Your task to perform on an android device: toggle priority inbox in the gmail app Image 0: 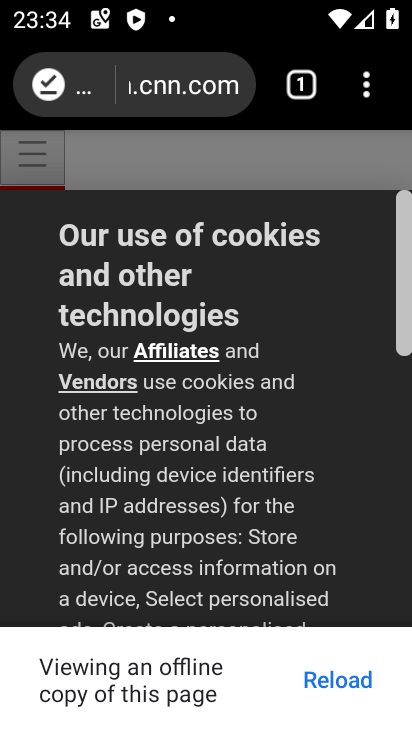
Step 0: press home button
Your task to perform on an android device: toggle priority inbox in the gmail app Image 1: 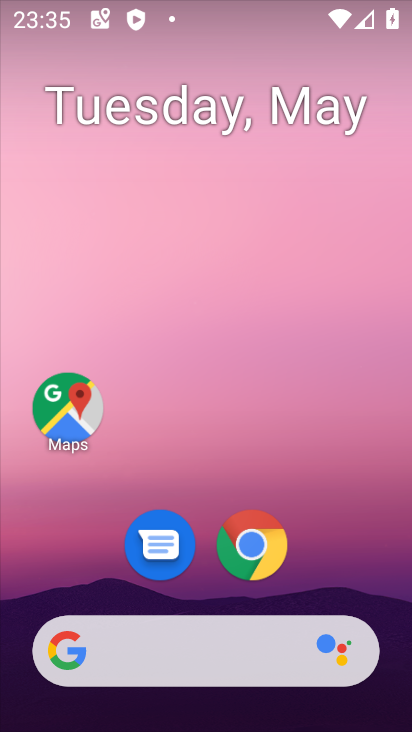
Step 1: drag from (209, 600) to (225, 167)
Your task to perform on an android device: toggle priority inbox in the gmail app Image 2: 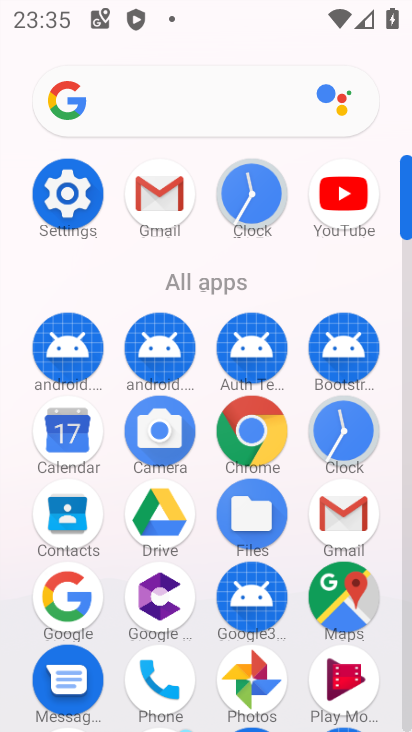
Step 2: click (345, 516)
Your task to perform on an android device: toggle priority inbox in the gmail app Image 3: 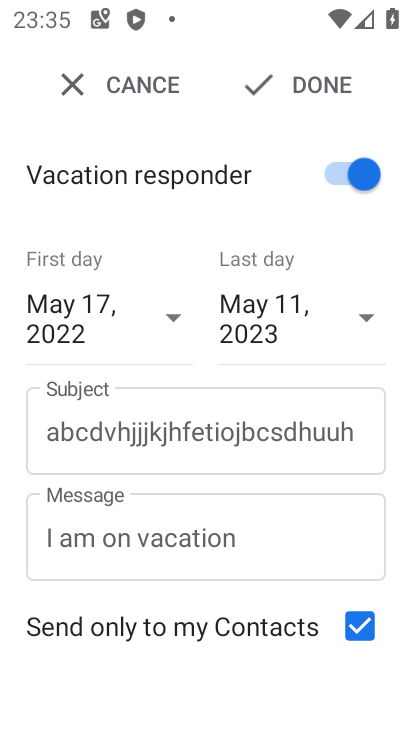
Step 3: click (282, 85)
Your task to perform on an android device: toggle priority inbox in the gmail app Image 4: 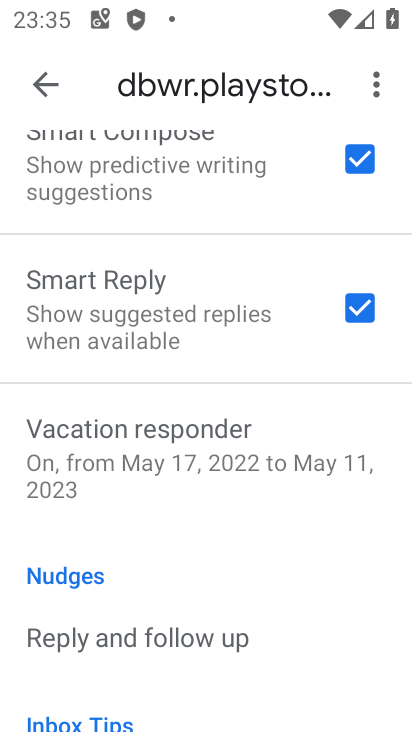
Step 4: click (34, 85)
Your task to perform on an android device: toggle priority inbox in the gmail app Image 5: 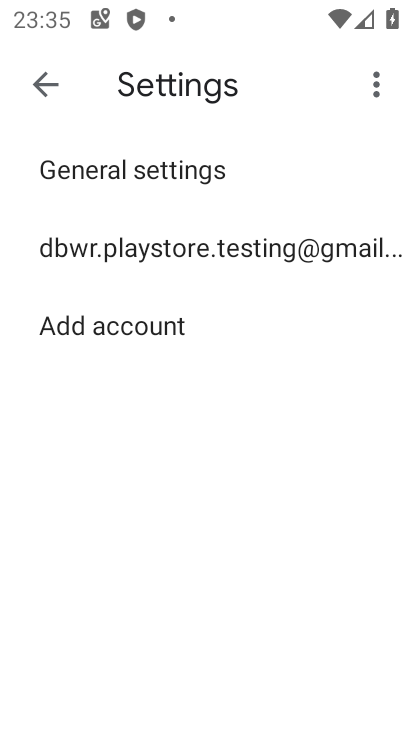
Step 5: click (34, 85)
Your task to perform on an android device: toggle priority inbox in the gmail app Image 6: 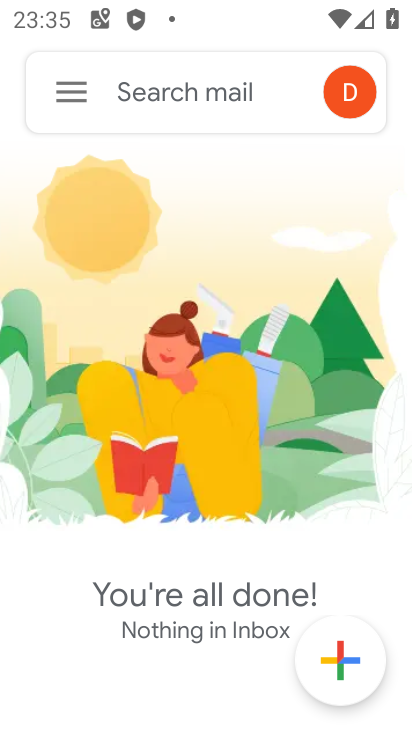
Step 6: click (61, 93)
Your task to perform on an android device: toggle priority inbox in the gmail app Image 7: 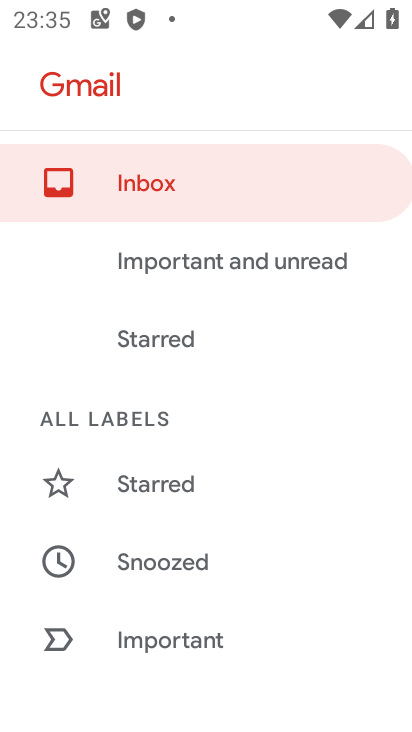
Step 7: drag from (190, 586) to (243, 230)
Your task to perform on an android device: toggle priority inbox in the gmail app Image 8: 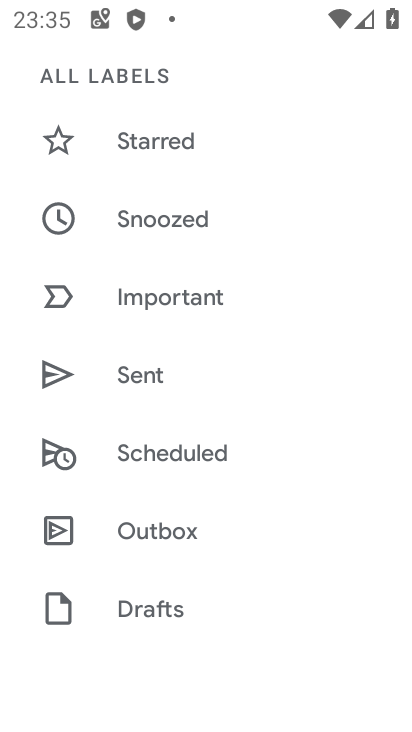
Step 8: drag from (207, 562) to (271, 117)
Your task to perform on an android device: toggle priority inbox in the gmail app Image 9: 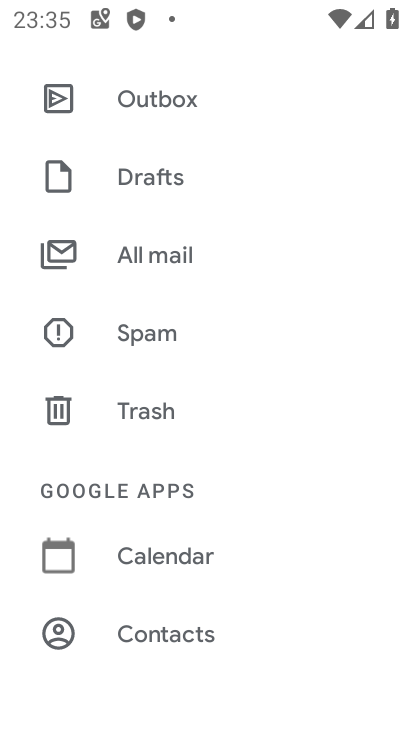
Step 9: drag from (178, 541) to (238, 176)
Your task to perform on an android device: toggle priority inbox in the gmail app Image 10: 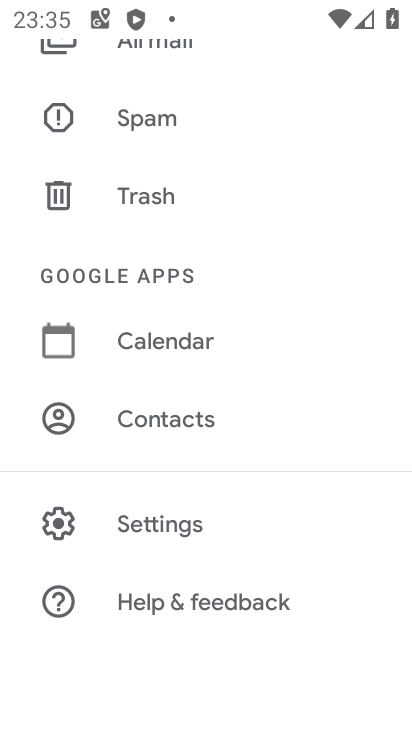
Step 10: click (158, 536)
Your task to perform on an android device: toggle priority inbox in the gmail app Image 11: 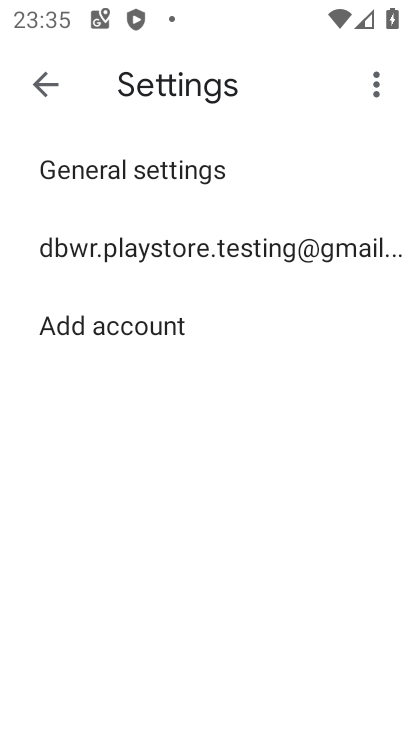
Step 11: click (143, 264)
Your task to perform on an android device: toggle priority inbox in the gmail app Image 12: 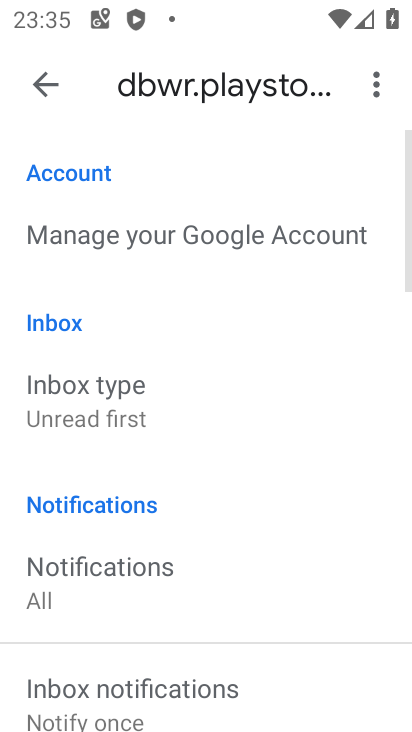
Step 12: drag from (170, 617) to (226, 289)
Your task to perform on an android device: toggle priority inbox in the gmail app Image 13: 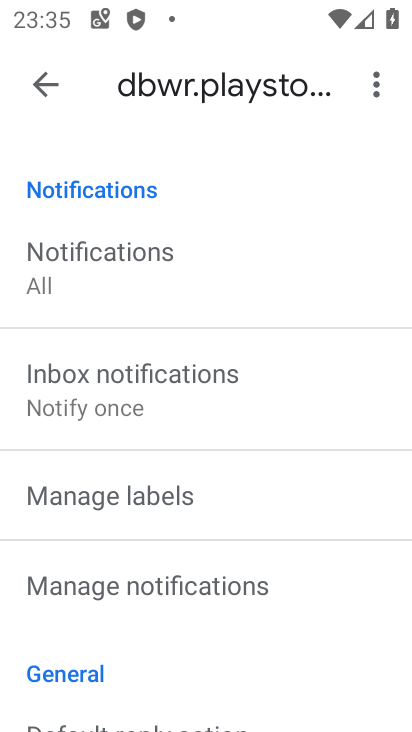
Step 13: drag from (186, 550) to (209, 222)
Your task to perform on an android device: toggle priority inbox in the gmail app Image 14: 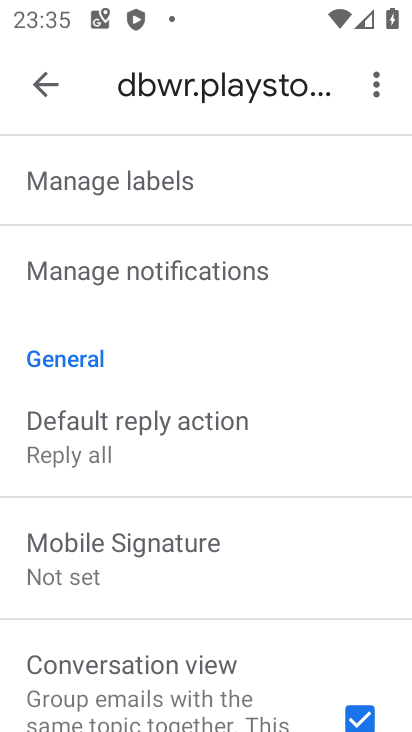
Step 14: drag from (193, 584) to (238, 216)
Your task to perform on an android device: toggle priority inbox in the gmail app Image 15: 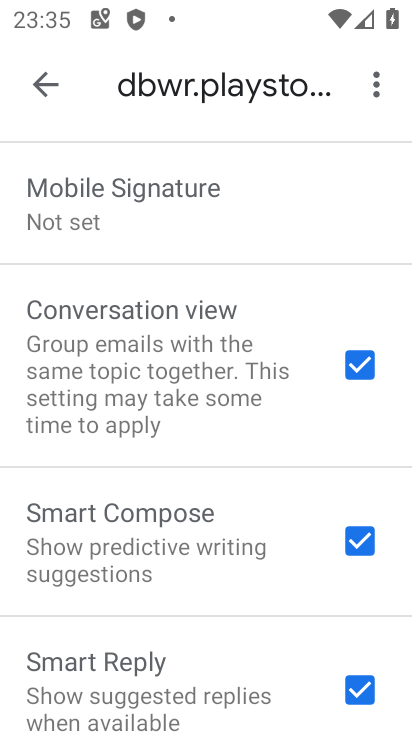
Step 15: drag from (160, 611) to (203, 298)
Your task to perform on an android device: toggle priority inbox in the gmail app Image 16: 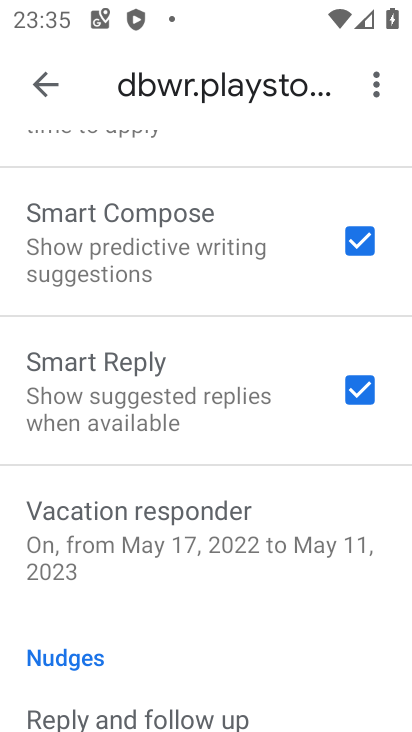
Step 16: drag from (130, 617) to (149, 361)
Your task to perform on an android device: toggle priority inbox in the gmail app Image 17: 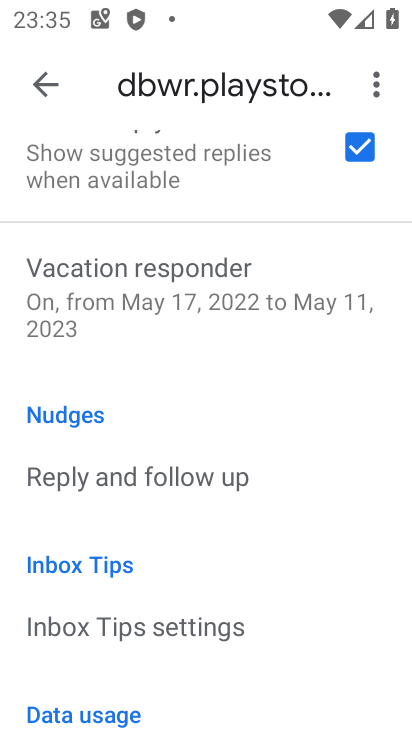
Step 17: drag from (87, 667) to (124, 338)
Your task to perform on an android device: toggle priority inbox in the gmail app Image 18: 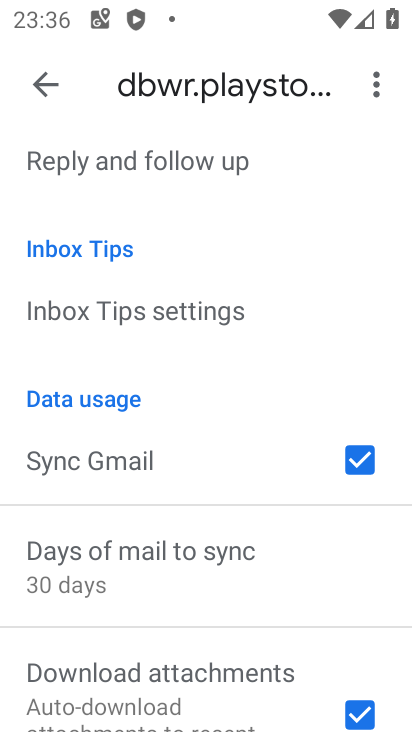
Step 18: drag from (162, 613) to (153, 268)
Your task to perform on an android device: toggle priority inbox in the gmail app Image 19: 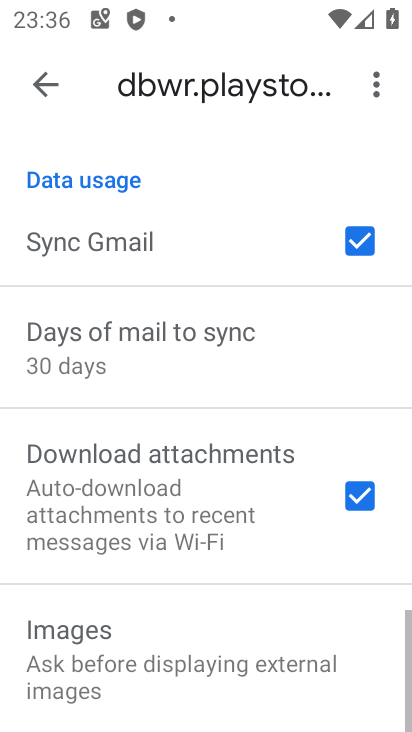
Step 19: drag from (156, 492) to (158, 391)
Your task to perform on an android device: toggle priority inbox in the gmail app Image 20: 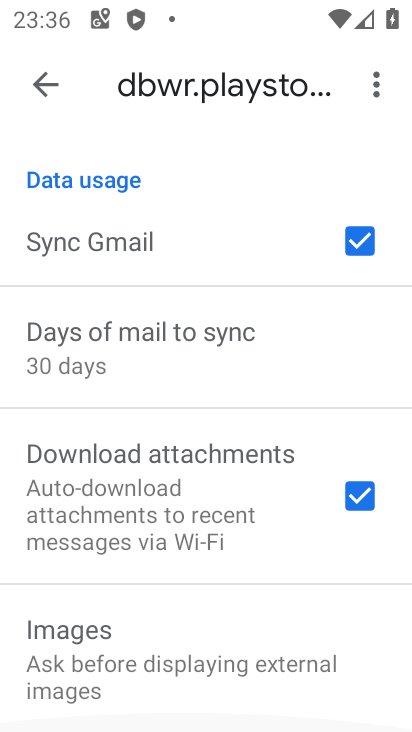
Step 20: drag from (165, 181) to (179, 614)
Your task to perform on an android device: toggle priority inbox in the gmail app Image 21: 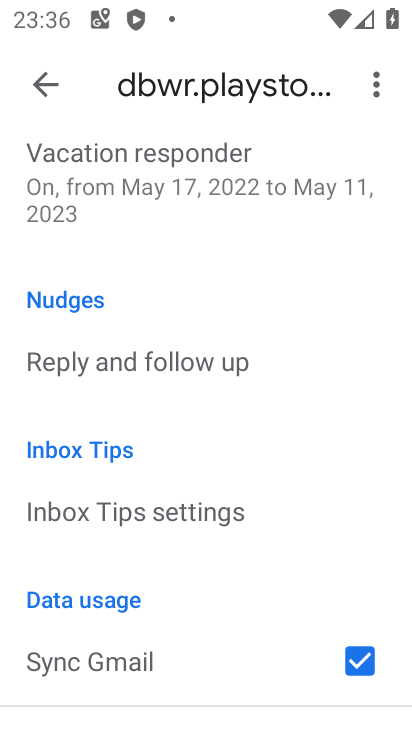
Step 21: drag from (124, 264) to (159, 596)
Your task to perform on an android device: toggle priority inbox in the gmail app Image 22: 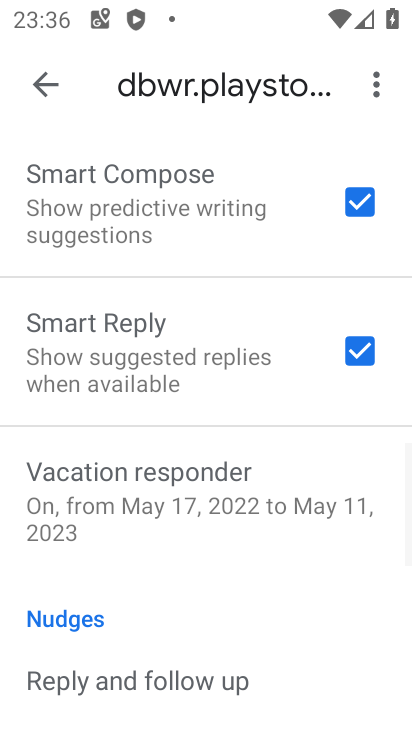
Step 22: drag from (144, 233) to (158, 586)
Your task to perform on an android device: toggle priority inbox in the gmail app Image 23: 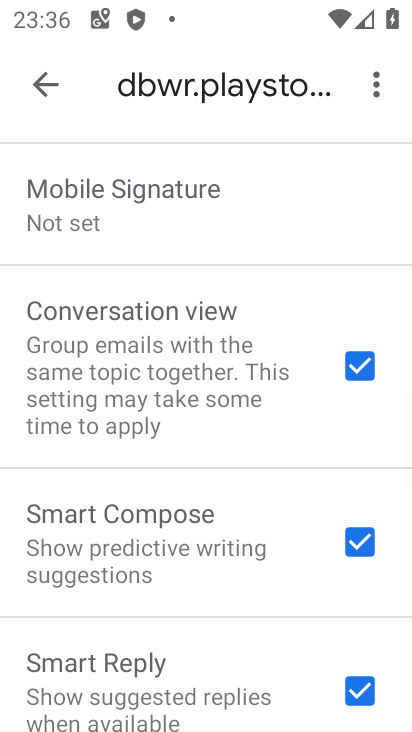
Step 23: drag from (170, 237) to (180, 556)
Your task to perform on an android device: toggle priority inbox in the gmail app Image 24: 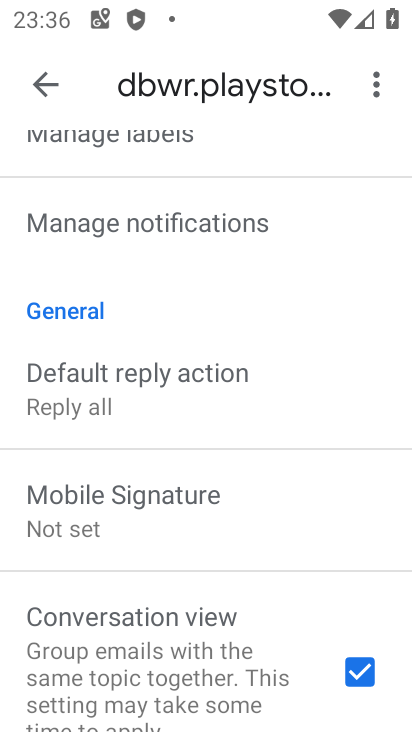
Step 24: drag from (143, 246) to (173, 642)
Your task to perform on an android device: toggle priority inbox in the gmail app Image 25: 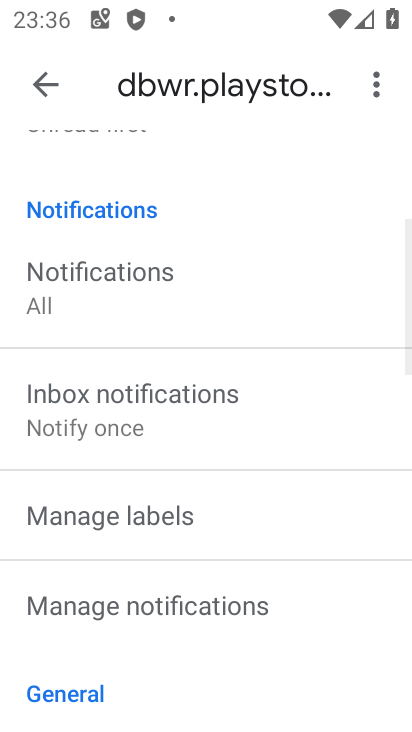
Step 25: drag from (130, 206) to (160, 560)
Your task to perform on an android device: toggle priority inbox in the gmail app Image 26: 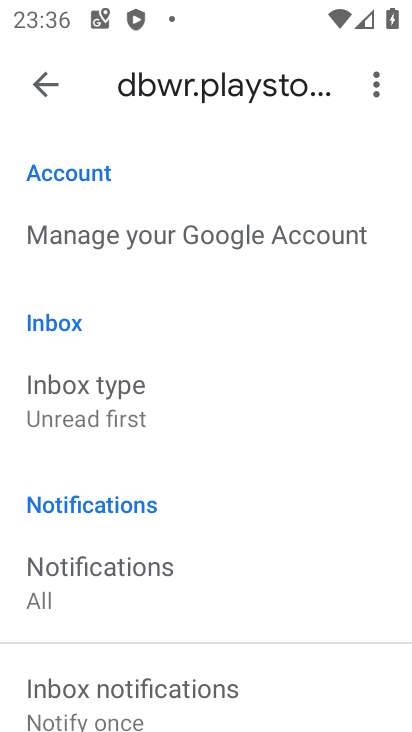
Step 26: drag from (129, 219) to (163, 510)
Your task to perform on an android device: toggle priority inbox in the gmail app Image 27: 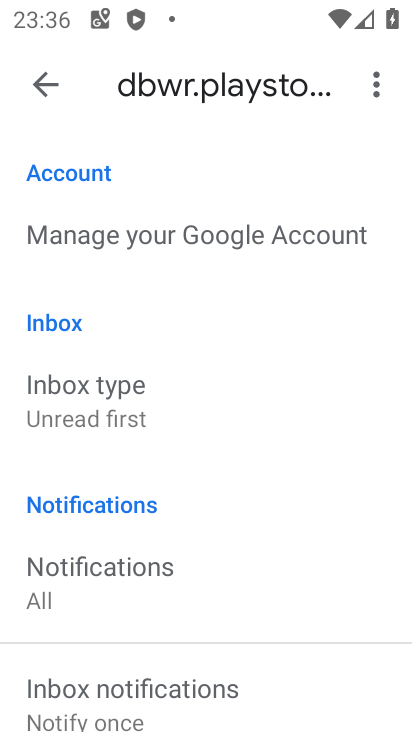
Step 27: click (124, 411)
Your task to perform on an android device: toggle priority inbox in the gmail app Image 28: 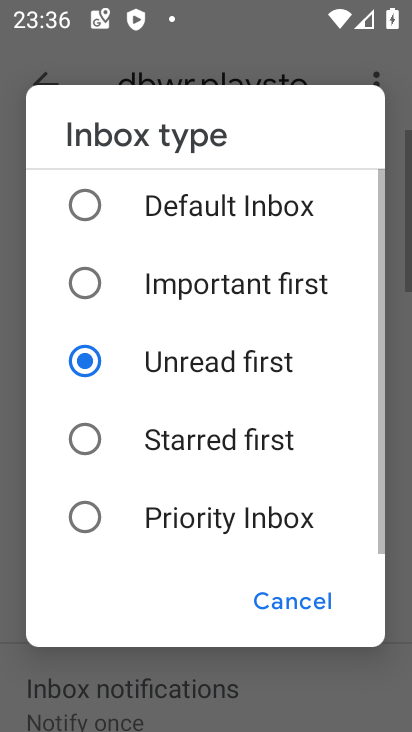
Step 28: click (196, 524)
Your task to perform on an android device: toggle priority inbox in the gmail app Image 29: 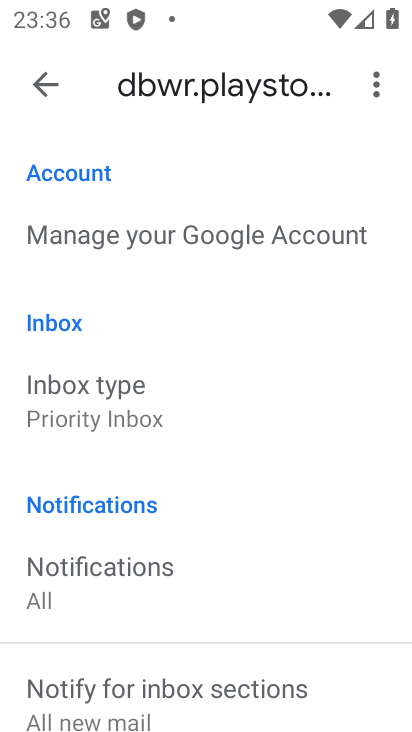
Step 29: task complete